Your task to perform on an android device: delete a single message in the gmail app Image 0: 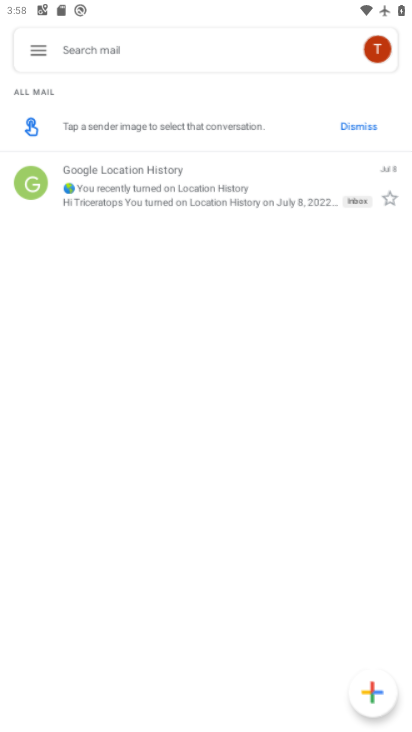
Step 0: click (228, 616)
Your task to perform on an android device: delete a single message in the gmail app Image 1: 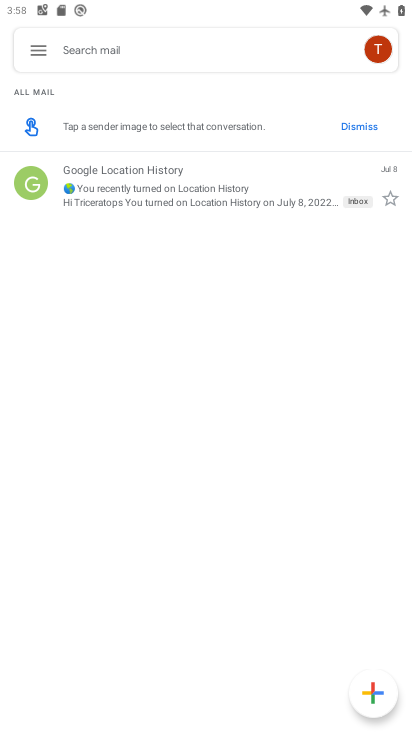
Step 1: click (228, 616)
Your task to perform on an android device: delete a single message in the gmail app Image 2: 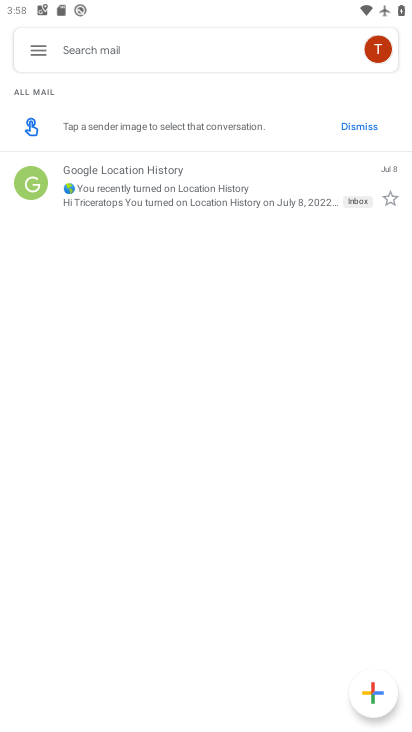
Step 2: press home button
Your task to perform on an android device: delete a single message in the gmail app Image 3: 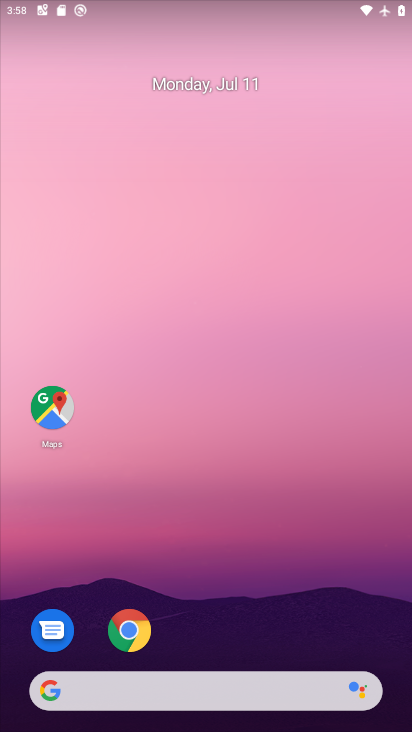
Step 3: drag from (226, 662) to (130, 97)
Your task to perform on an android device: delete a single message in the gmail app Image 4: 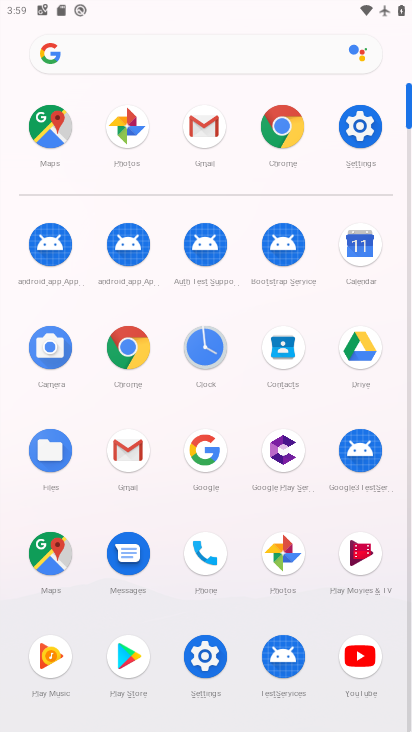
Step 4: click (127, 447)
Your task to perform on an android device: delete a single message in the gmail app Image 5: 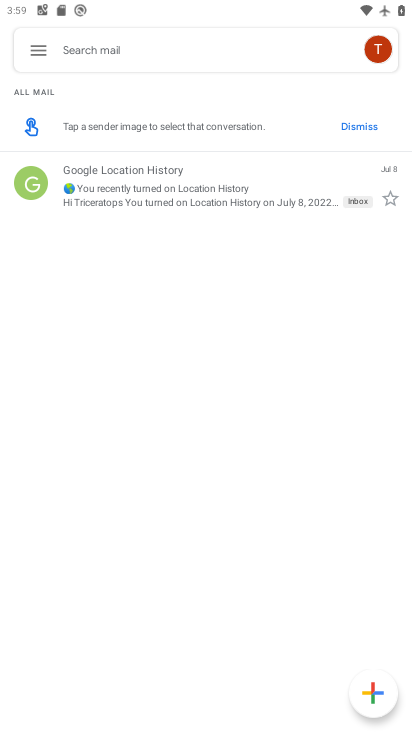
Step 5: click (27, 188)
Your task to perform on an android device: delete a single message in the gmail app Image 6: 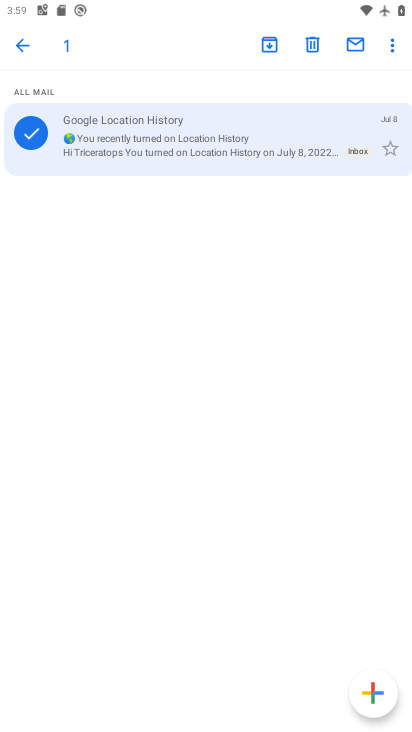
Step 6: click (318, 49)
Your task to perform on an android device: delete a single message in the gmail app Image 7: 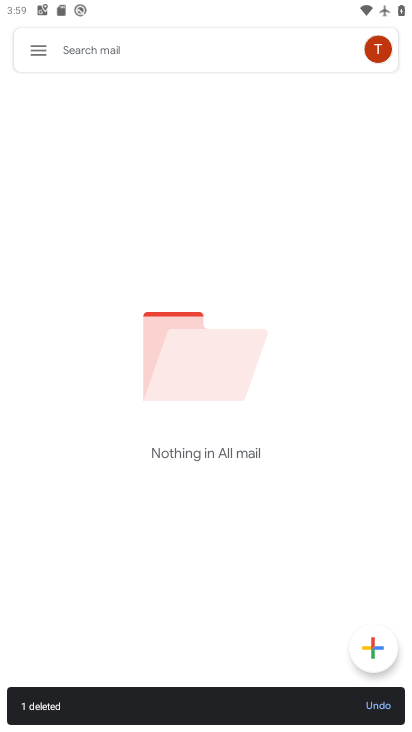
Step 7: task complete